Your task to perform on an android device: Do I have any events tomorrow? Image 0: 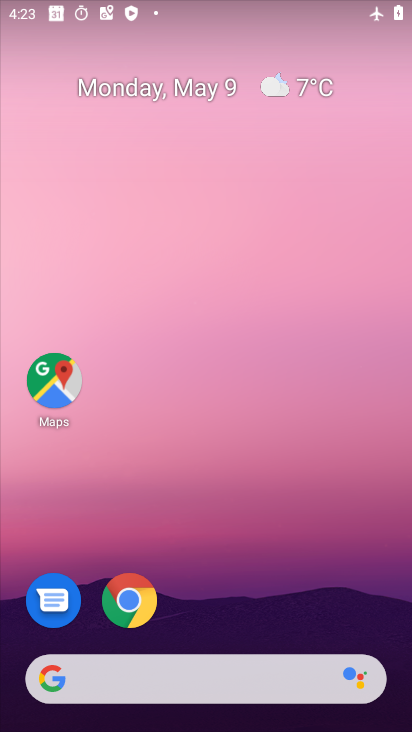
Step 0: drag from (319, 590) to (271, 116)
Your task to perform on an android device: Do I have any events tomorrow? Image 1: 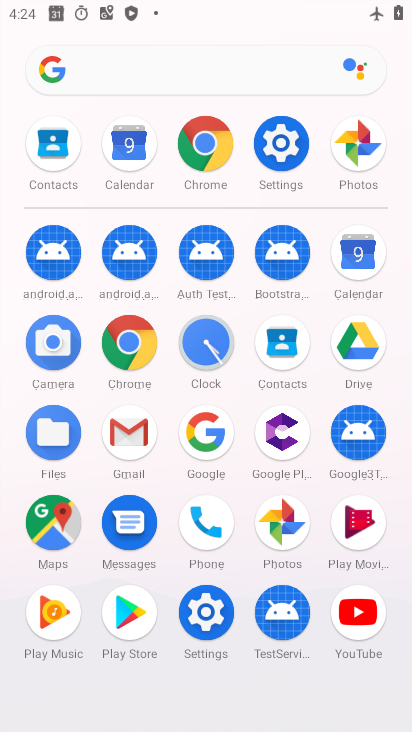
Step 1: click (355, 255)
Your task to perform on an android device: Do I have any events tomorrow? Image 2: 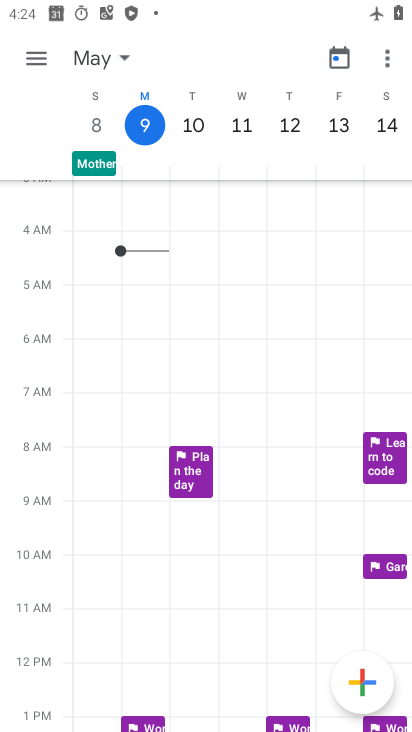
Step 2: click (204, 128)
Your task to perform on an android device: Do I have any events tomorrow? Image 3: 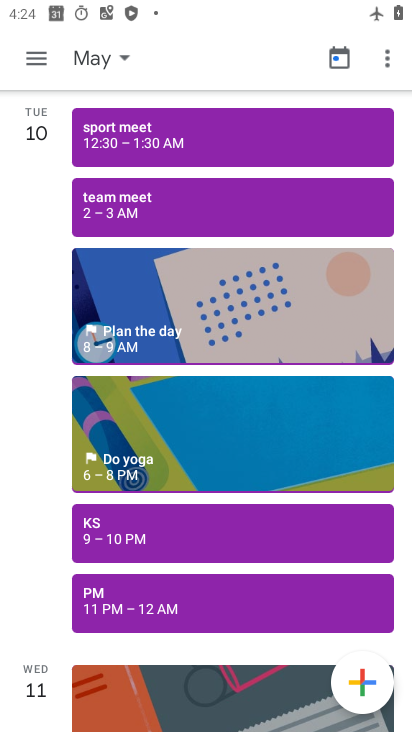
Step 3: task complete